Your task to perform on an android device: Open Google Maps Image 0: 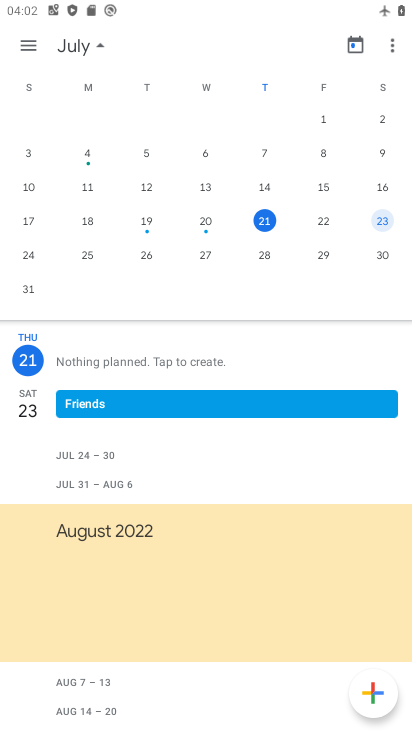
Step 0: press home button
Your task to perform on an android device: Open Google Maps Image 1: 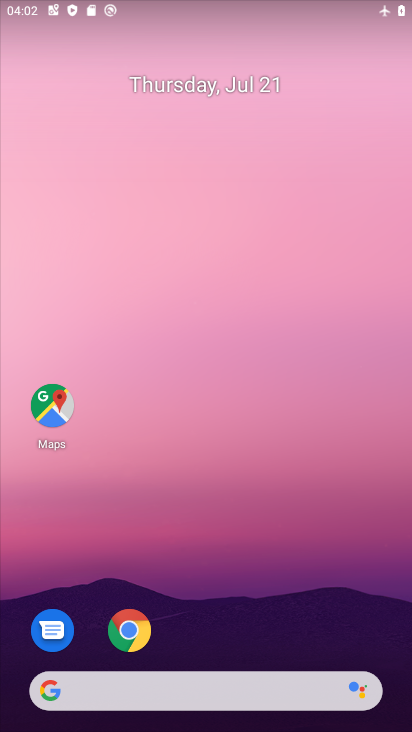
Step 1: click (63, 410)
Your task to perform on an android device: Open Google Maps Image 2: 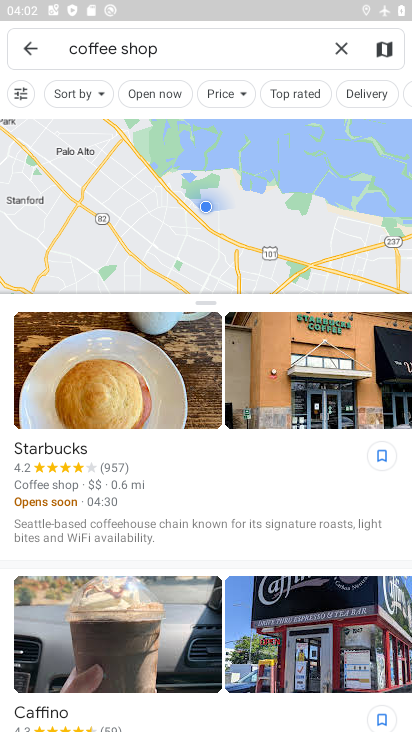
Step 2: task complete